Your task to perform on an android device: Open settings on Google Maps Image 0: 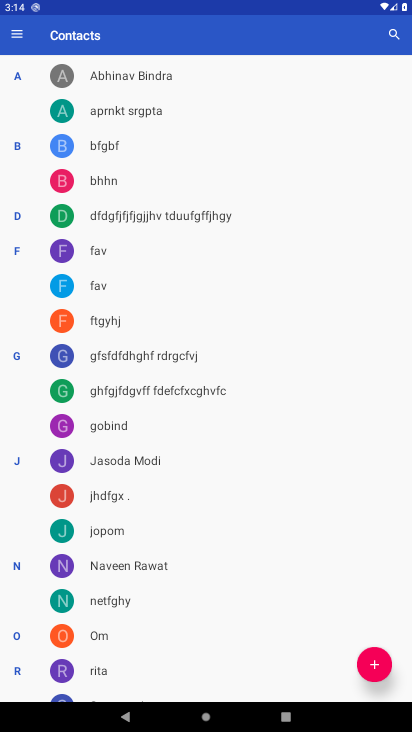
Step 0: press home button
Your task to perform on an android device: Open settings on Google Maps Image 1: 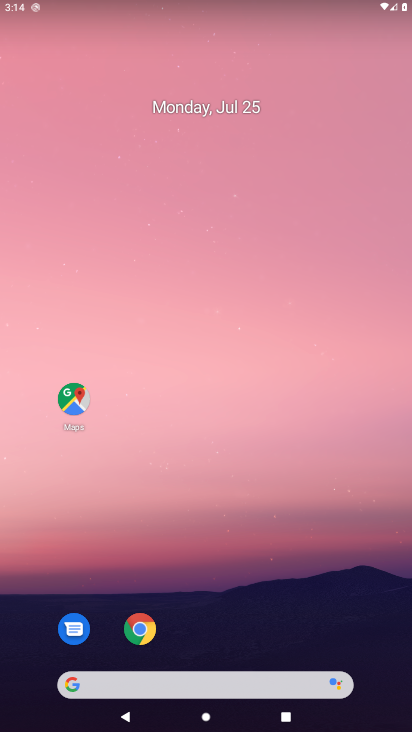
Step 1: click (78, 388)
Your task to perform on an android device: Open settings on Google Maps Image 2: 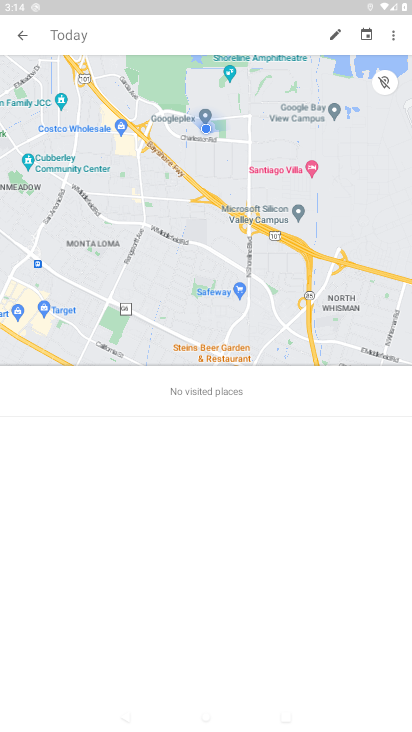
Step 2: click (21, 30)
Your task to perform on an android device: Open settings on Google Maps Image 3: 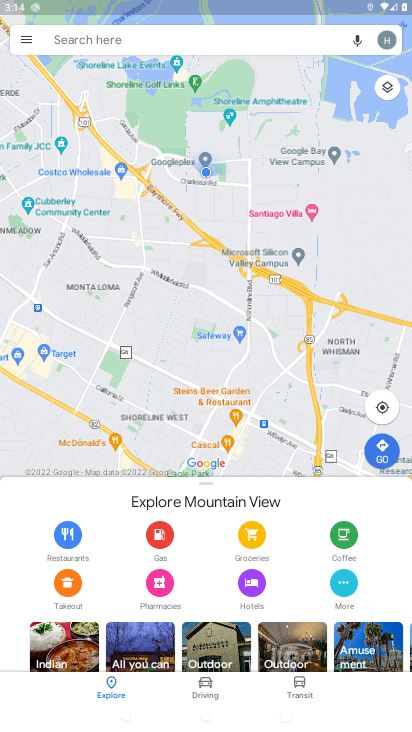
Step 3: task complete